Your task to perform on an android device: Set the phone to "Do not disturb". Image 0: 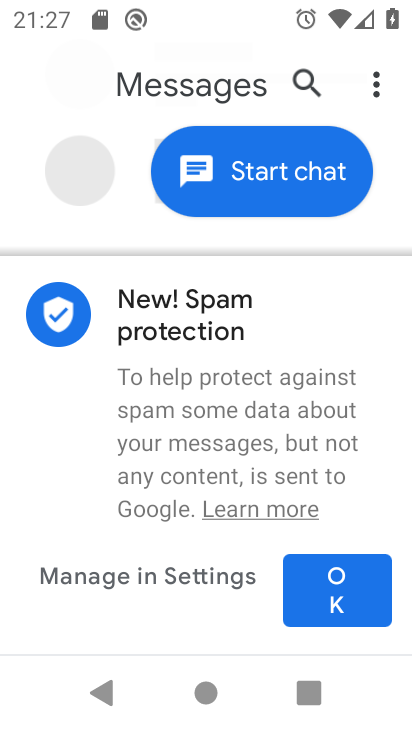
Step 0: drag from (213, 0) to (200, 202)
Your task to perform on an android device: Set the phone to "Do not disturb". Image 1: 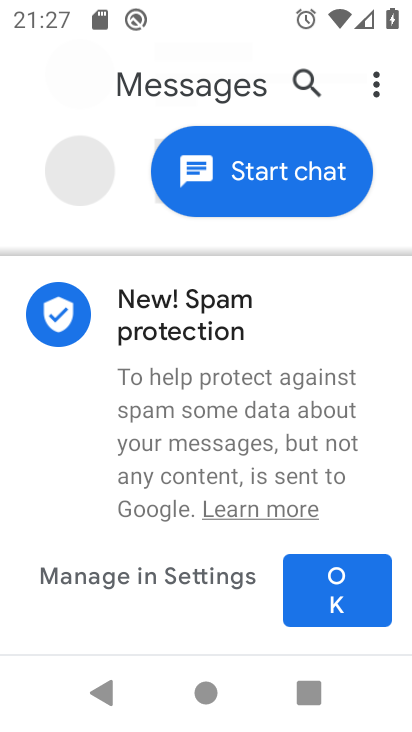
Step 1: drag from (145, 7) to (131, 501)
Your task to perform on an android device: Set the phone to "Do not disturb". Image 2: 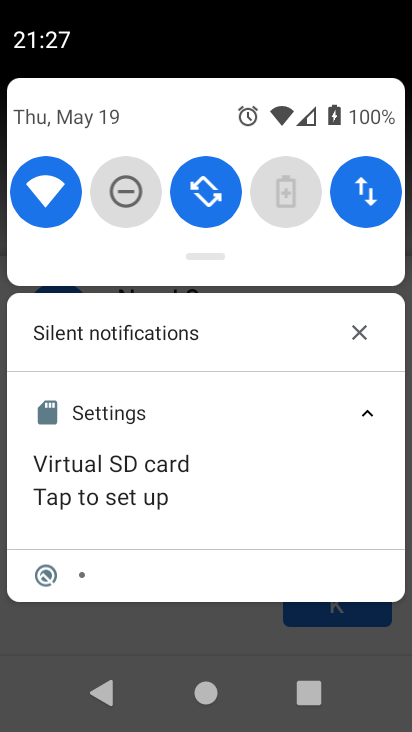
Step 2: click (109, 190)
Your task to perform on an android device: Set the phone to "Do not disturb". Image 3: 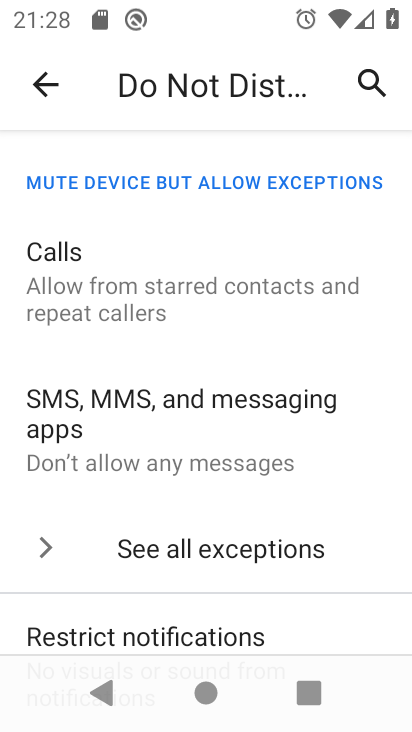
Step 3: drag from (223, 547) to (330, 100)
Your task to perform on an android device: Set the phone to "Do not disturb". Image 4: 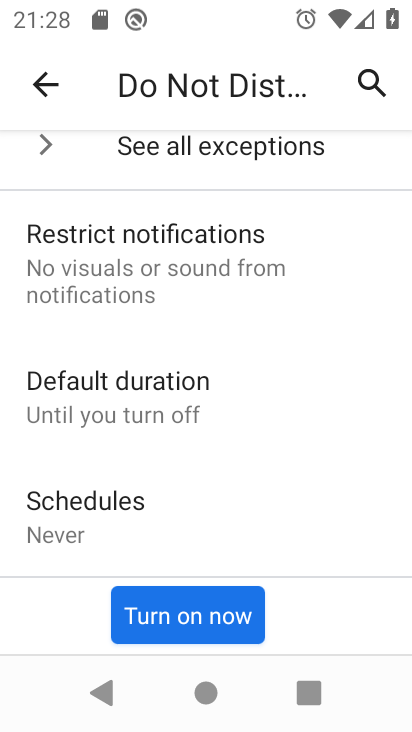
Step 4: click (168, 587)
Your task to perform on an android device: Set the phone to "Do not disturb". Image 5: 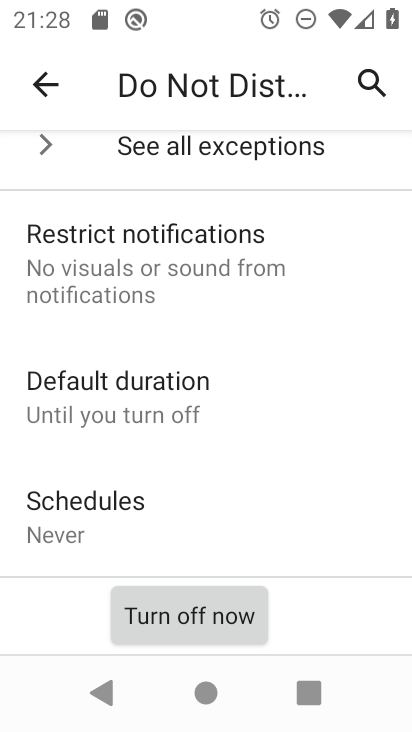
Step 5: task complete